Your task to perform on an android device: search for starred emails in the gmail app Image 0: 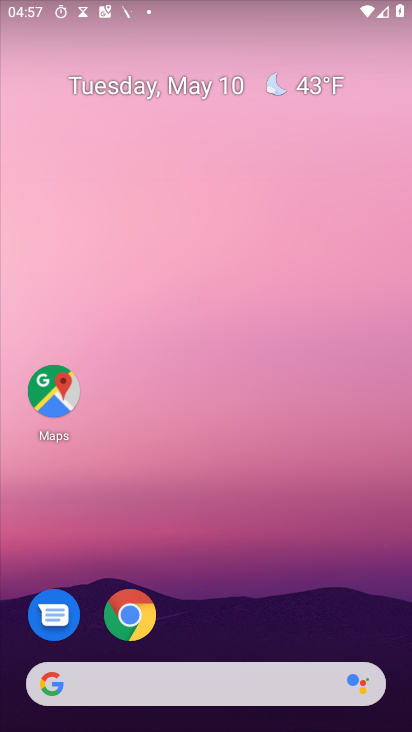
Step 0: drag from (288, 660) to (284, 2)
Your task to perform on an android device: search for starred emails in the gmail app Image 1: 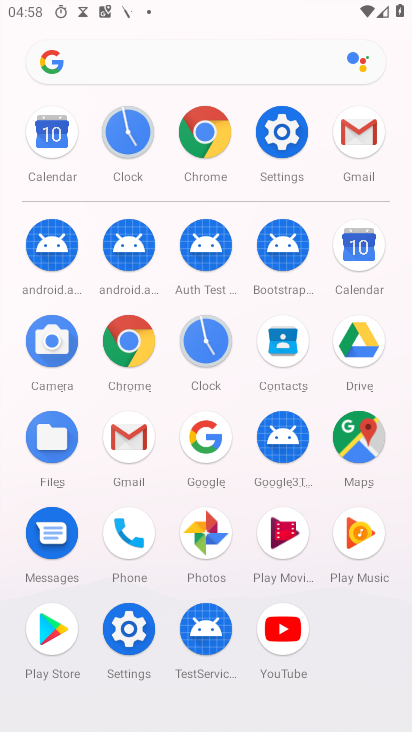
Step 1: click (134, 433)
Your task to perform on an android device: search for starred emails in the gmail app Image 2: 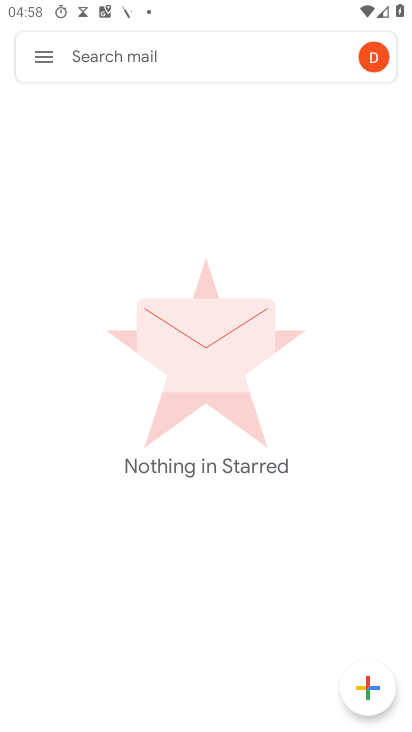
Step 2: click (44, 58)
Your task to perform on an android device: search for starred emails in the gmail app Image 3: 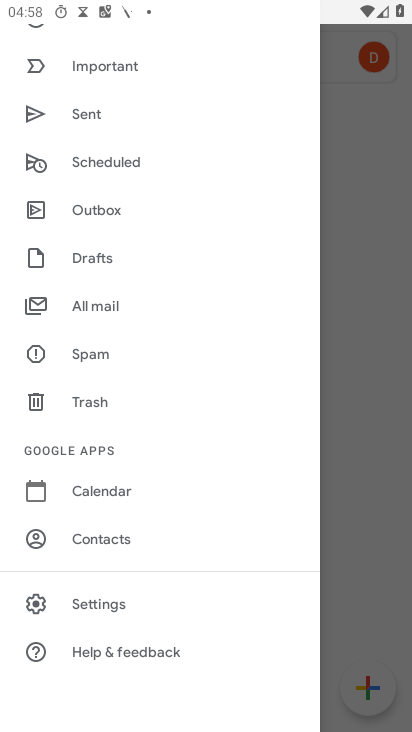
Step 3: drag from (195, 200) to (190, 523)
Your task to perform on an android device: search for starred emails in the gmail app Image 4: 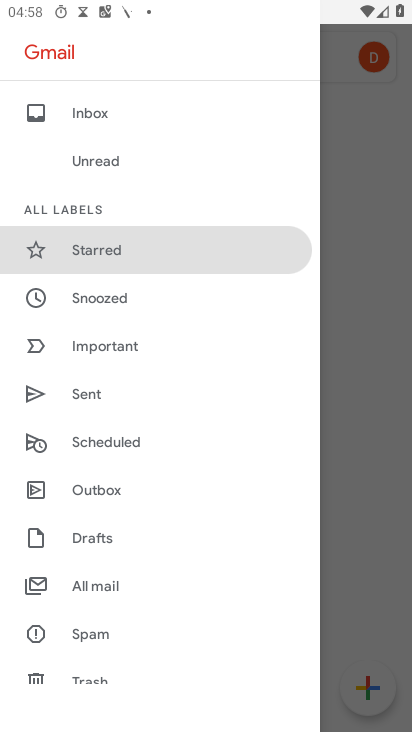
Step 4: click (158, 247)
Your task to perform on an android device: search for starred emails in the gmail app Image 5: 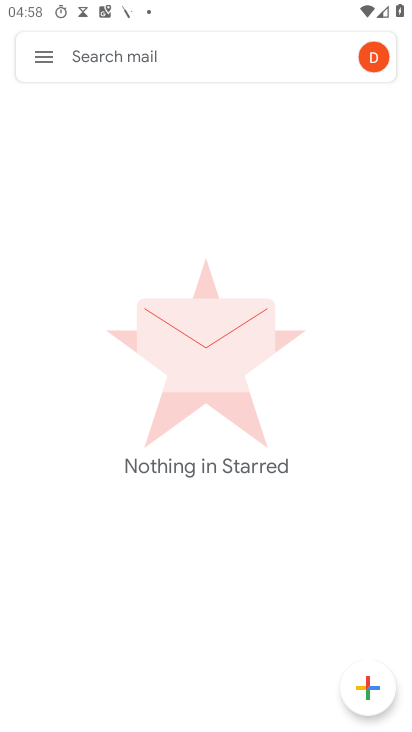
Step 5: task complete